Your task to perform on an android device: toggle sleep mode Image 0: 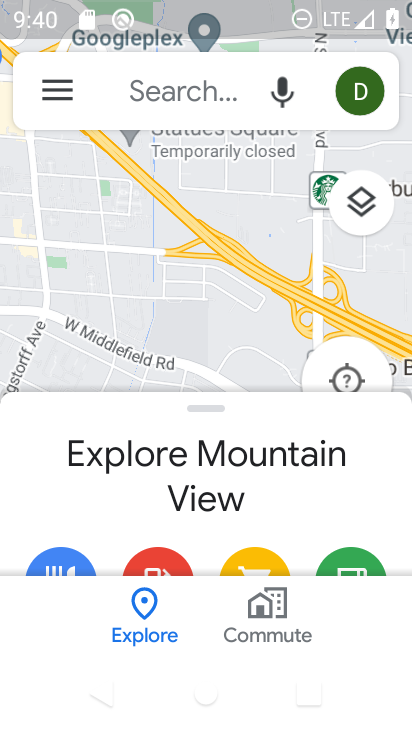
Step 0: drag from (258, 25) to (266, 690)
Your task to perform on an android device: toggle sleep mode Image 1: 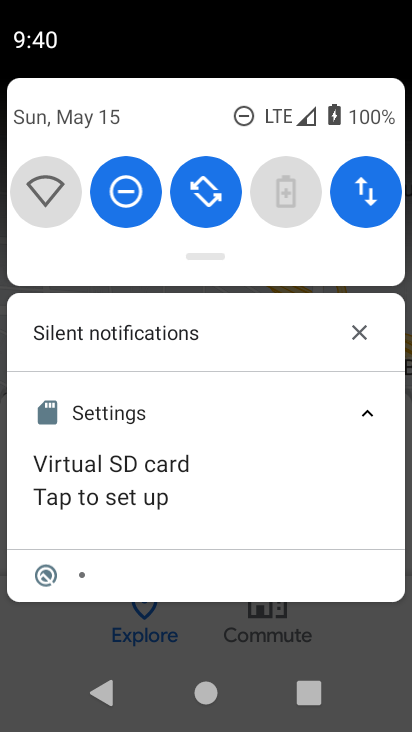
Step 1: drag from (227, 126) to (230, 670)
Your task to perform on an android device: toggle sleep mode Image 2: 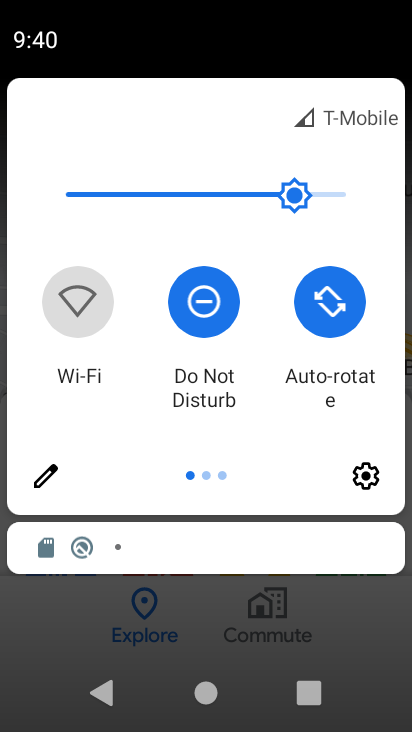
Step 2: click (356, 473)
Your task to perform on an android device: toggle sleep mode Image 3: 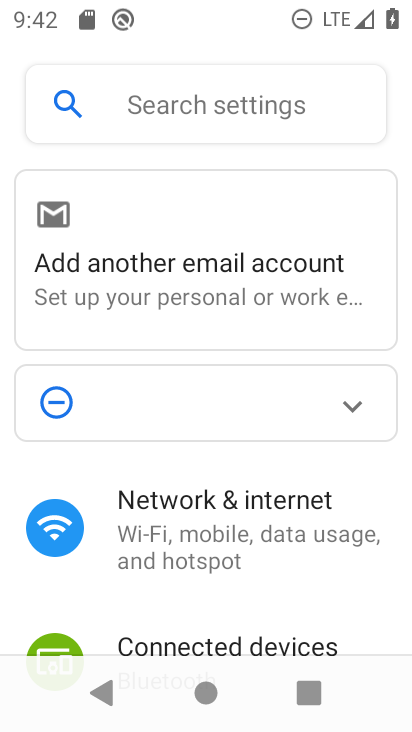
Step 3: task complete